Your task to perform on an android device: toggle wifi Image 0: 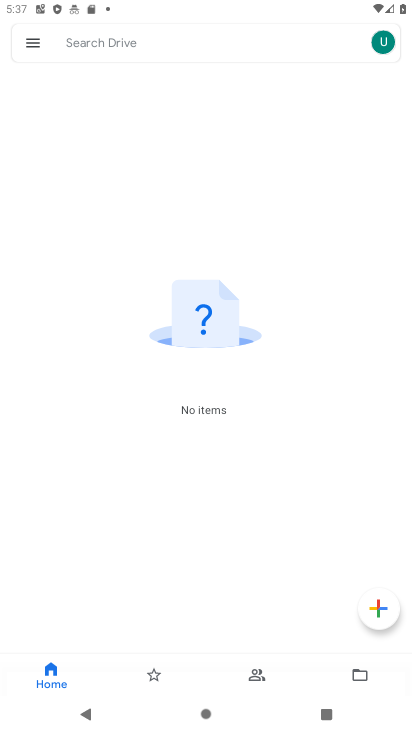
Step 0: press home button
Your task to perform on an android device: toggle wifi Image 1: 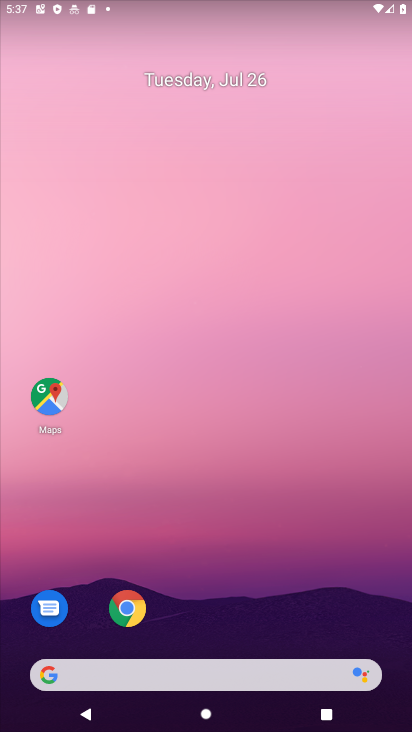
Step 1: drag from (192, 13) to (205, 718)
Your task to perform on an android device: toggle wifi Image 2: 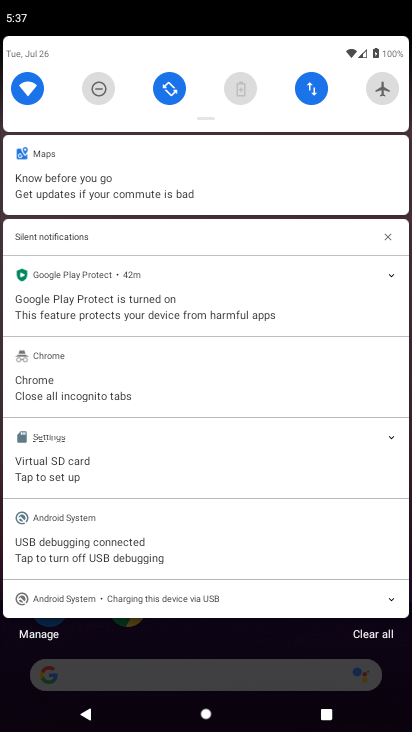
Step 2: click (24, 91)
Your task to perform on an android device: toggle wifi Image 3: 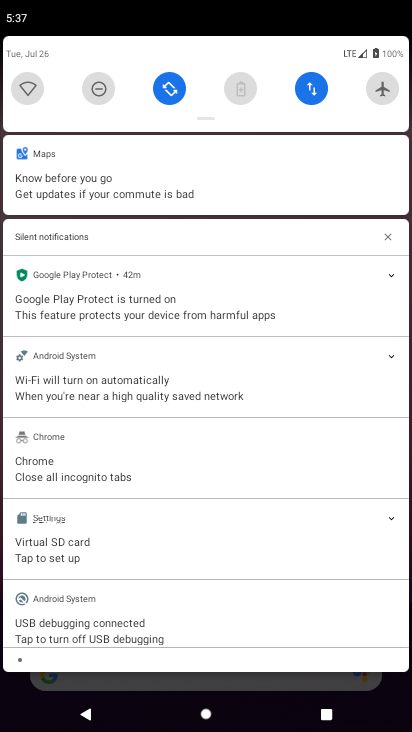
Step 3: task complete